Your task to perform on an android device: add a label to a message in the gmail app Image 0: 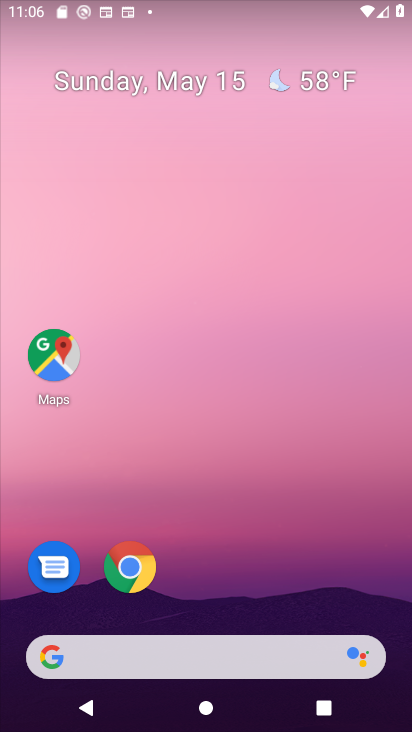
Step 0: drag from (198, 621) to (406, 352)
Your task to perform on an android device: add a label to a message in the gmail app Image 1: 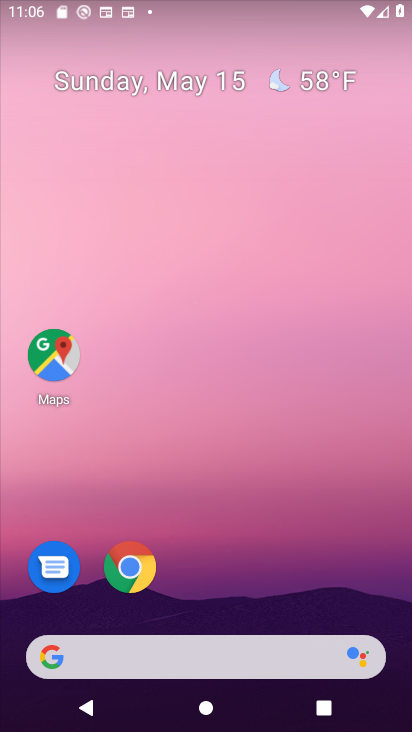
Step 1: drag from (198, 614) to (397, 17)
Your task to perform on an android device: add a label to a message in the gmail app Image 2: 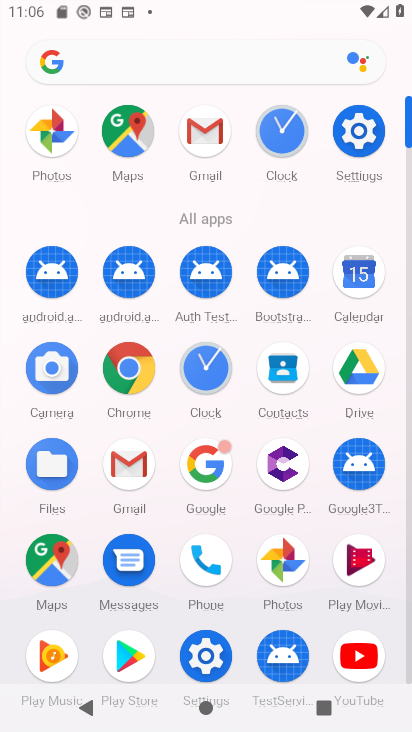
Step 2: click (135, 455)
Your task to perform on an android device: add a label to a message in the gmail app Image 3: 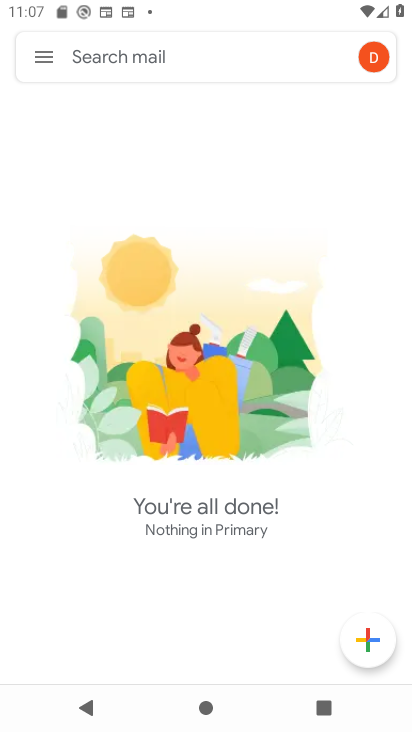
Step 3: task complete